Your task to perform on an android device: Turn off the flashlight Image 0: 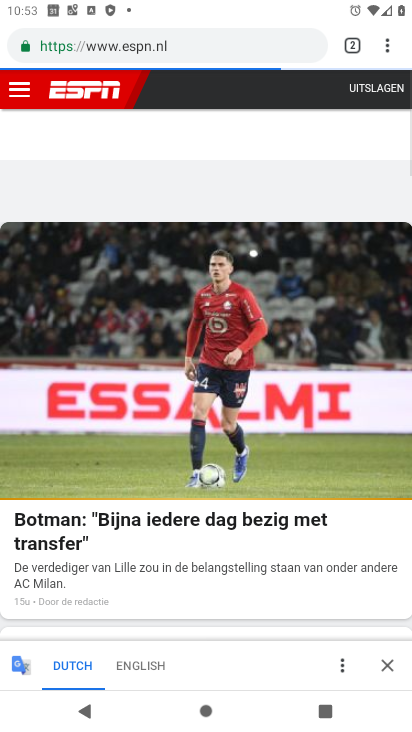
Step 0: press home button
Your task to perform on an android device: Turn off the flashlight Image 1: 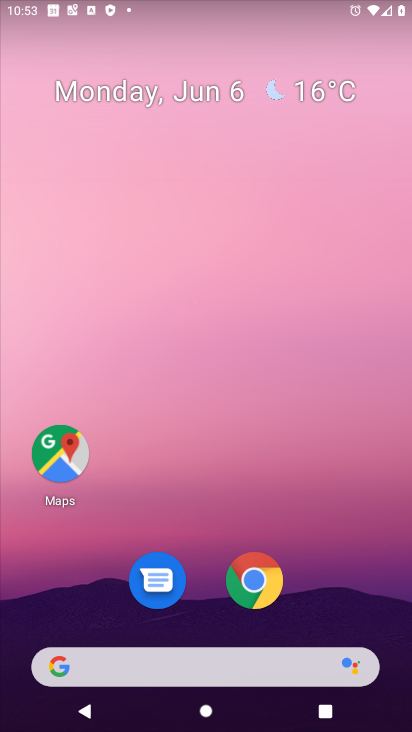
Step 1: drag from (342, 475) to (166, 5)
Your task to perform on an android device: Turn off the flashlight Image 2: 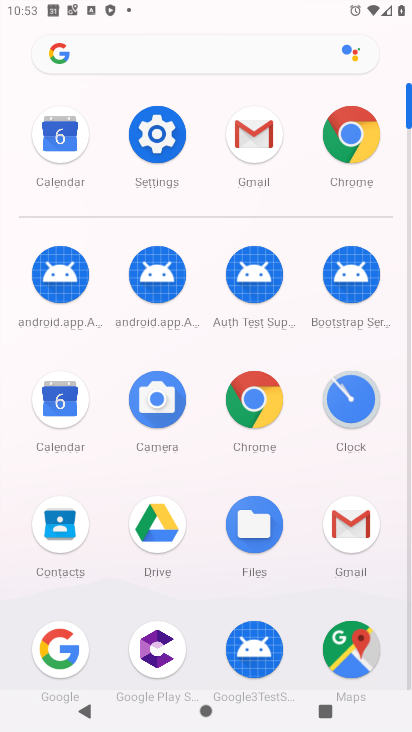
Step 2: click (186, 150)
Your task to perform on an android device: Turn off the flashlight Image 3: 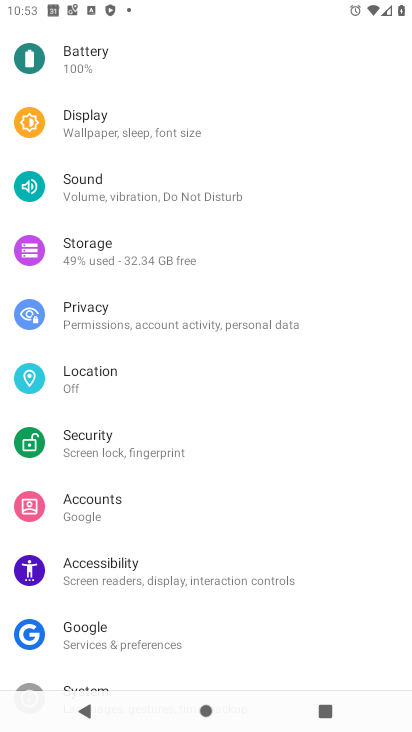
Step 3: task complete